Your task to perform on an android device: Go to calendar. Show me events next week Image 0: 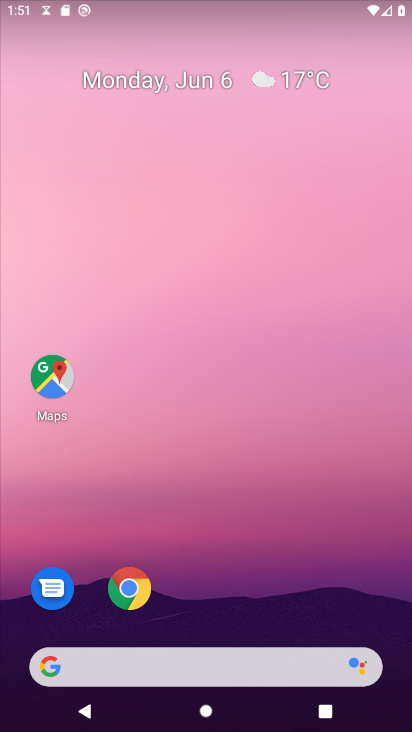
Step 0: drag from (220, 619) to (214, 300)
Your task to perform on an android device: Go to calendar. Show me events next week Image 1: 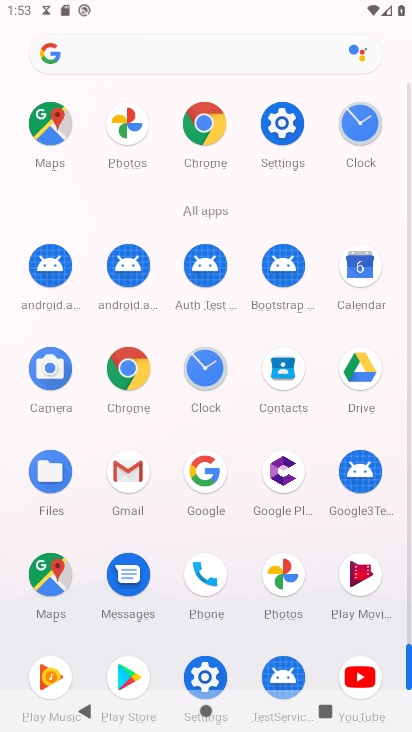
Step 1: click (366, 275)
Your task to perform on an android device: Go to calendar. Show me events next week Image 2: 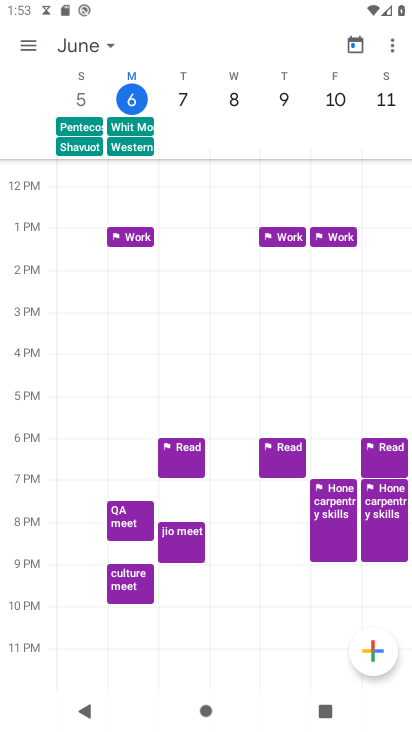
Step 2: click (78, 35)
Your task to perform on an android device: Go to calendar. Show me events next week Image 3: 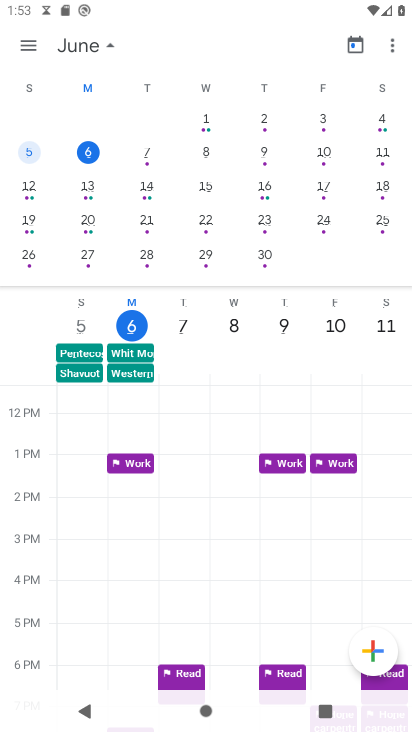
Step 3: click (27, 186)
Your task to perform on an android device: Go to calendar. Show me events next week Image 4: 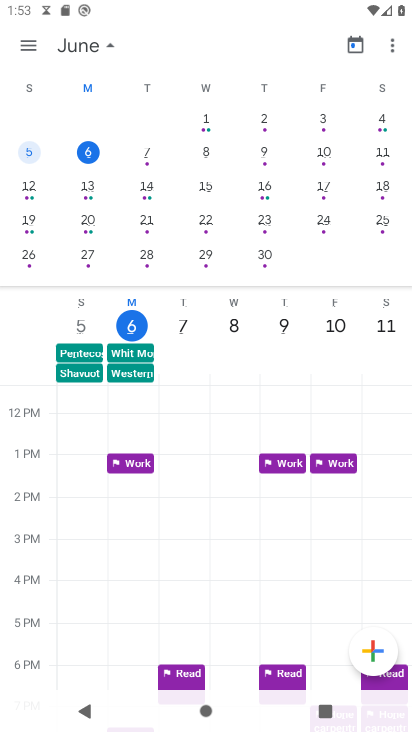
Step 4: click (27, 186)
Your task to perform on an android device: Go to calendar. Show me events next week Image 5: 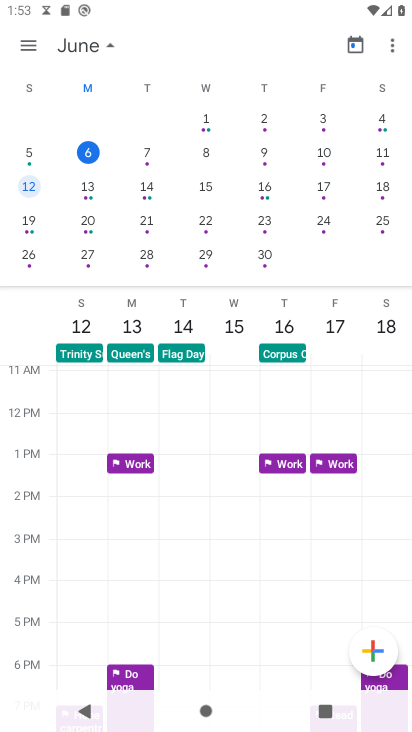
Step 5: task complete